Your task to perform on an android device: Go to wifi settings Image 0: 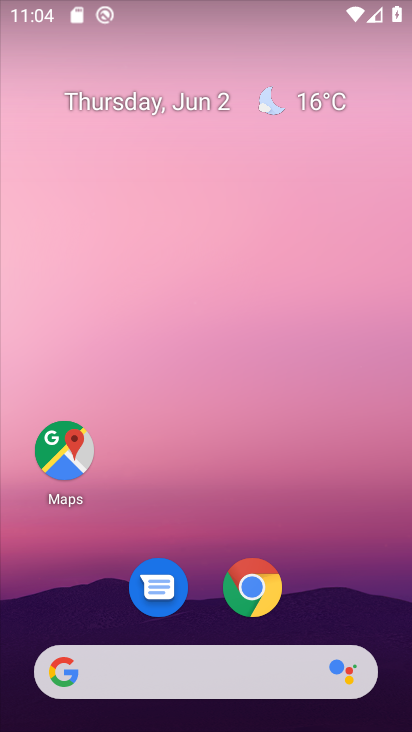
Step 0: drag from (244, 499) to (279, 42)
Your task to perform on an android device: Go to wifi settings Image 1: 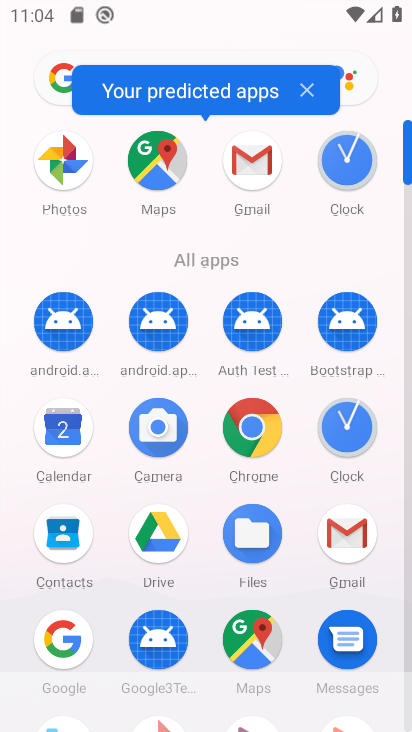
Step 1: drag from (297, 560) to (312, 153)
Your task to perform on an android device: Go to wifi settings Image 2: 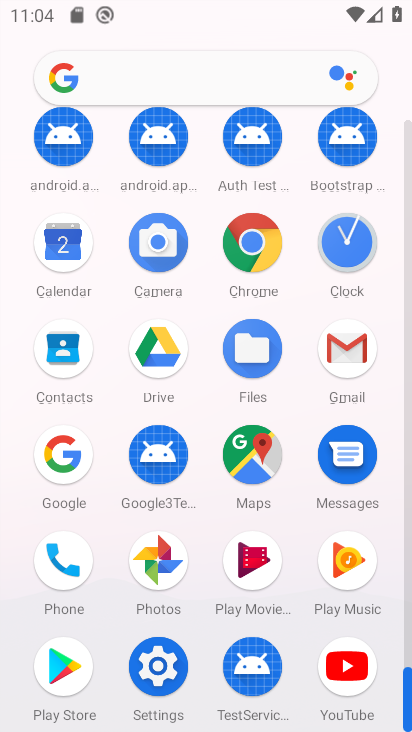
Step 2: click (164, 653)
Your task to perform on an android device: Go to wifi settings Image 3: 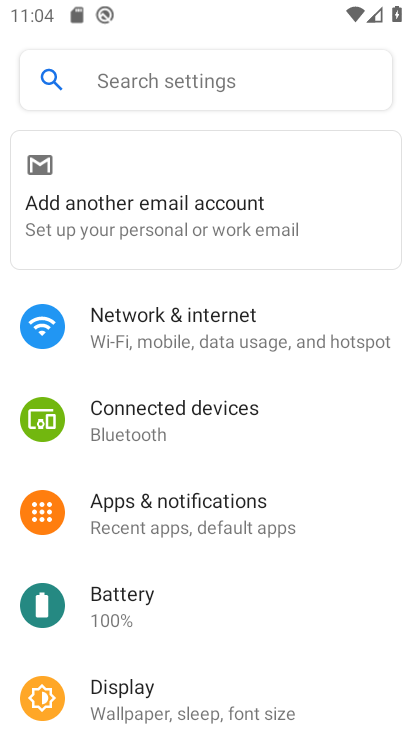
Step 3: drag from (235, 592) to (199, 313)
Your task to perform on an android device: Go to wifi settings Image 4: 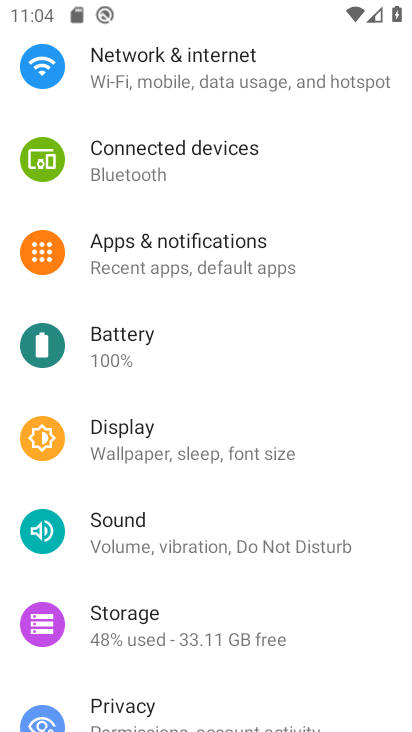
Step 4: click (182, 79)
Your task to perform on an android device: Go to wifi settings Image 5: 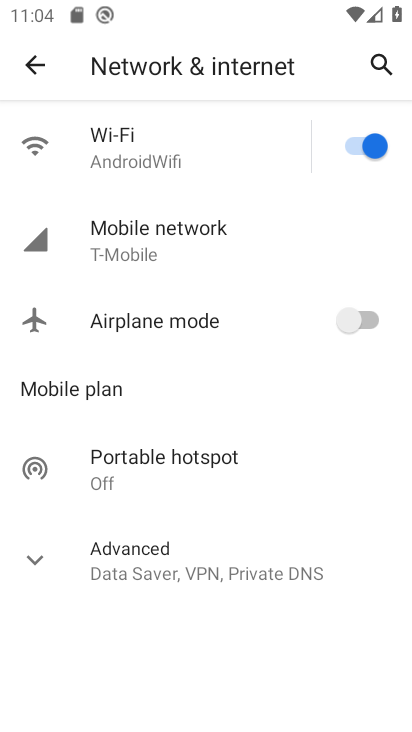
Step 5: click (179, 147)
Your task to perform on an android device: Go to wifi settings Image 6: 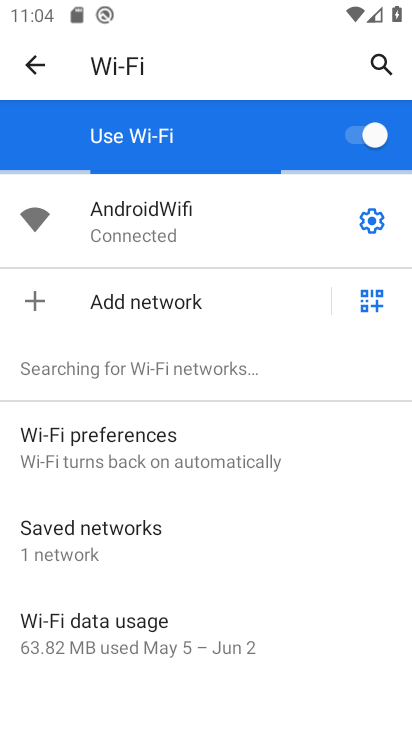
Step 6: task complete